Your task to perform on an android device: toggle pop-ups in chrome Image 0: 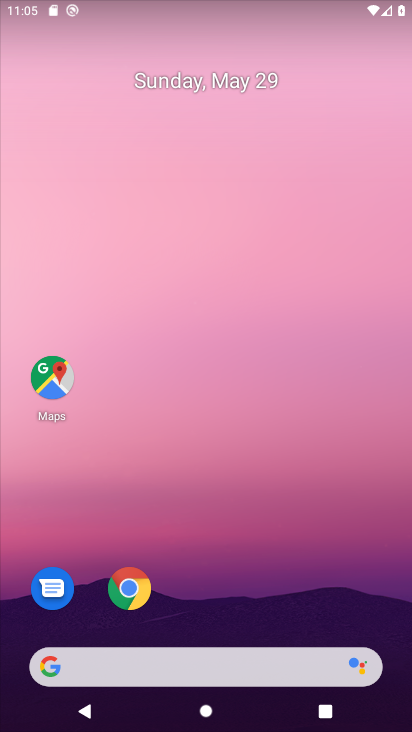
Step 0: click (131, 608)
Your task to perform on an android device: toggle pop-ups in chrome Image 1: 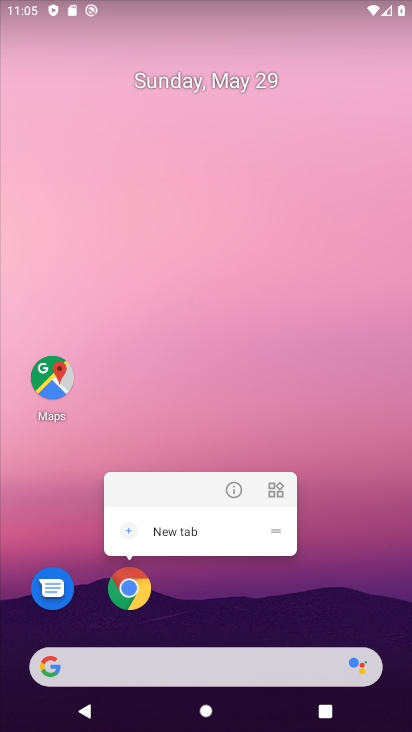
Step 1: click (135, 597)
Your task to perform on an android device: toggle pop-ups in chrome Image 2: 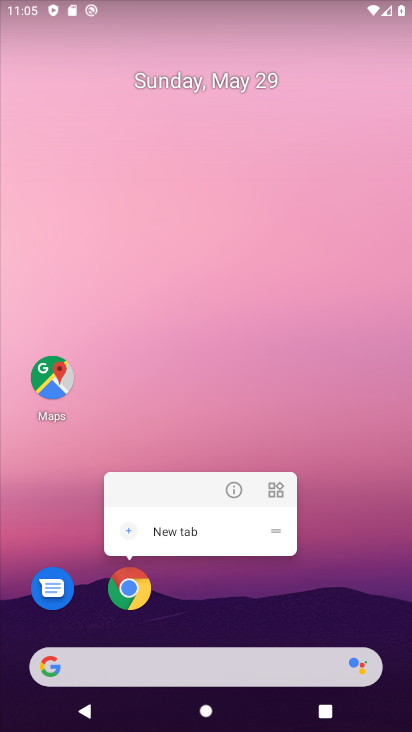
Step 2: click (145, 590)
Your task to perform on an android device: toggle pop-ups in chrome Image 3: 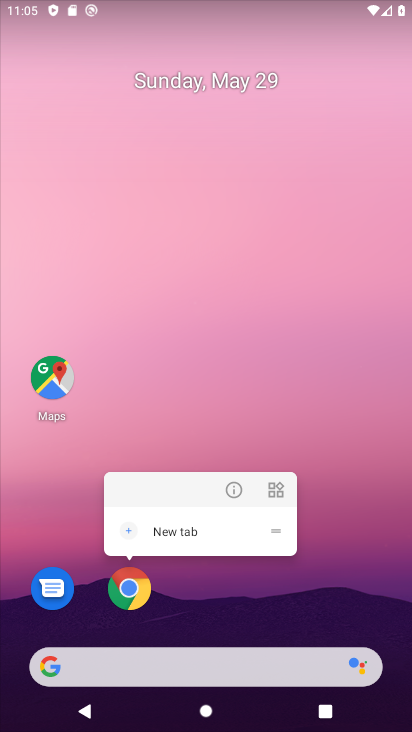
Step 3: click (119, 590)
Your task to perform on an android device: toggle pop-ups in chrome Image 4: 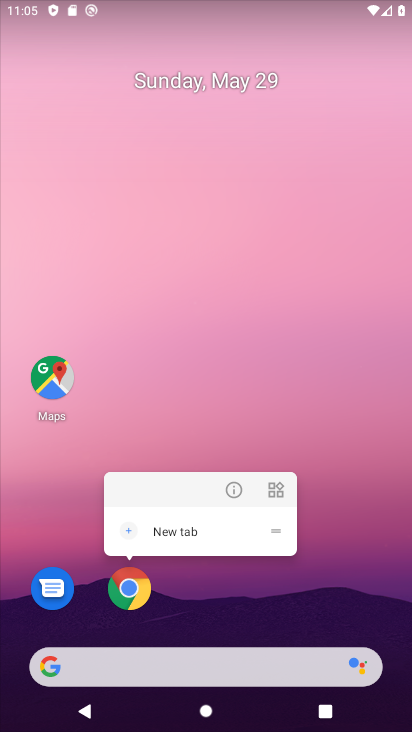
Step 4: click (135, 586)
Your task to perform on an android device: toggle pop-ups in chrome Image 5: 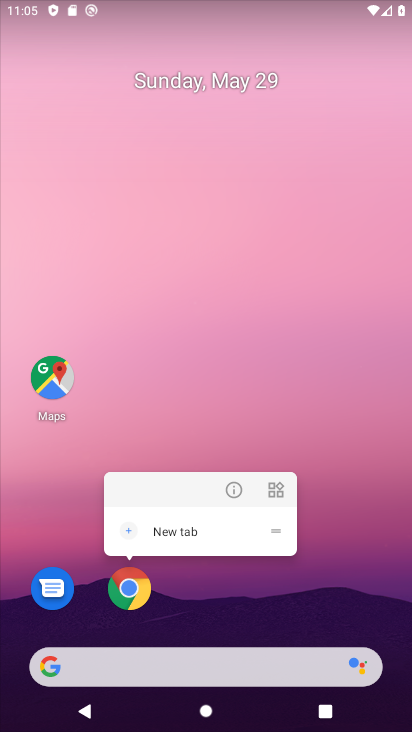
Step 5: click (126, 591)
Your task to perform on an android device: toggle pop-ups in chrome Image 6: 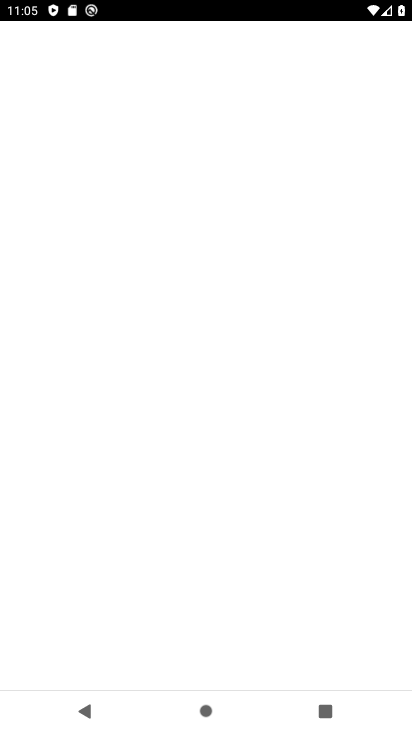
Step 6: click (128, 592)
Your task to perform on an android device: toggle pop-ups in chrome Image 7: 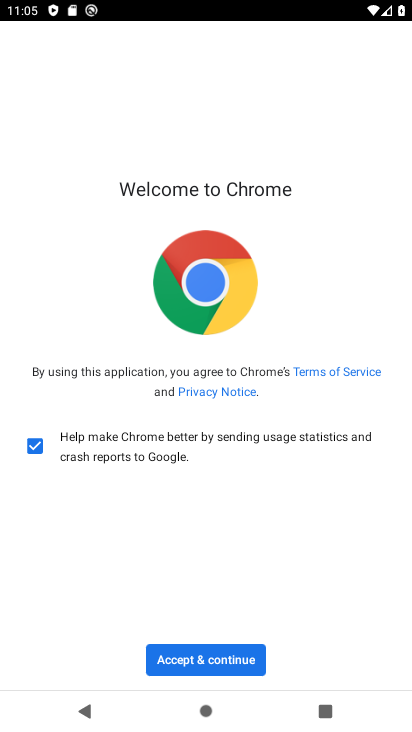
Step 7: click (194, 656)
Your task to perform on an android device: toggle pop-ups in chrome Image 8: 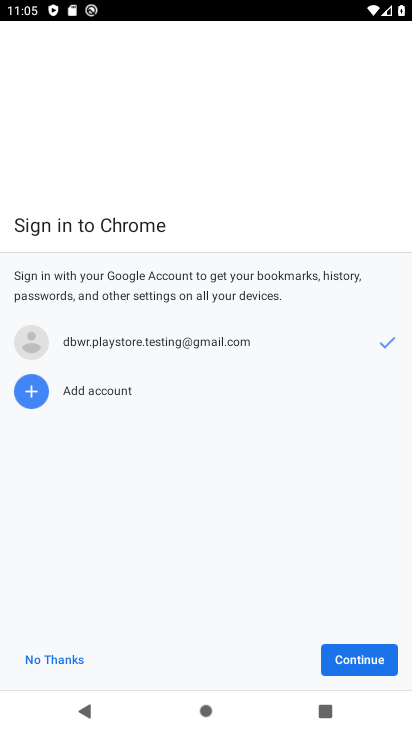
Step 8: click (365, 669)
Your task to perform on an android device: toggle pop-ups in chrome Image 9: 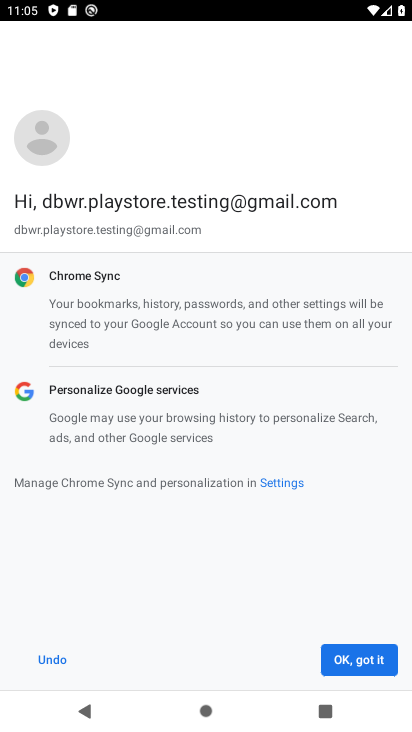
Step 9: click (365, 668)
Your task to perform on an android device: toggle pop-ups in chrome Image 10: 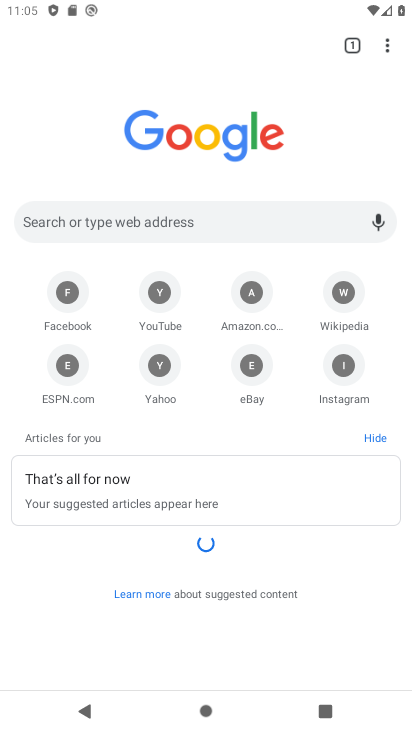
Step 10: drag from (406, 44) to (267, 400)
Your task to perform on an android device: toggle pop-ups in chrome Image 11: 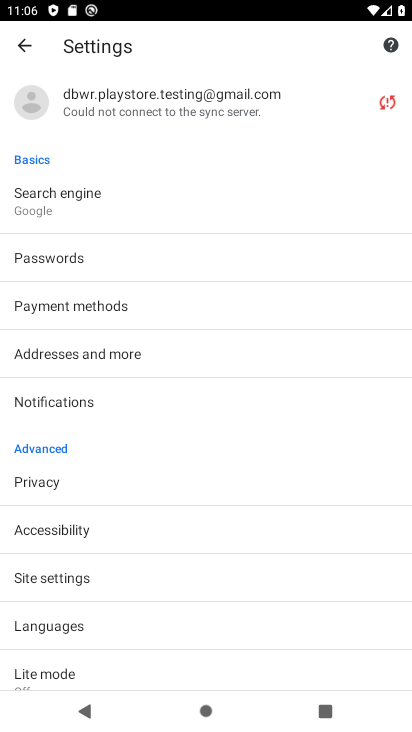
Step 11: drag from (107, 603) to (176, 391)
Your task to perform on an android device: toggle pop-ups in chrome Image 12: 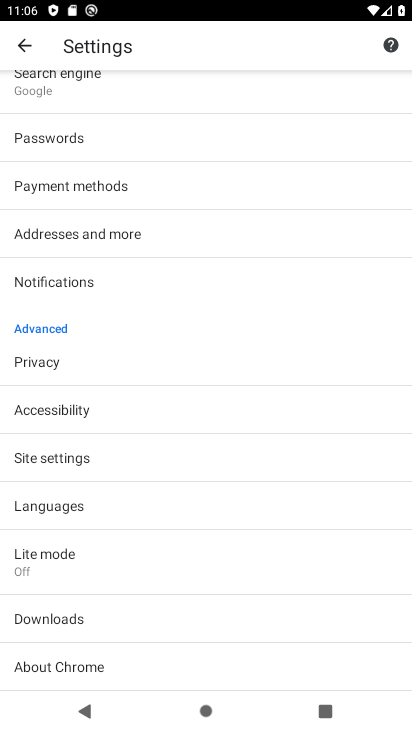
Step 12: click (116, 457)
Your task to perform on an android device: toggle pop-ups in chrome Image 13: 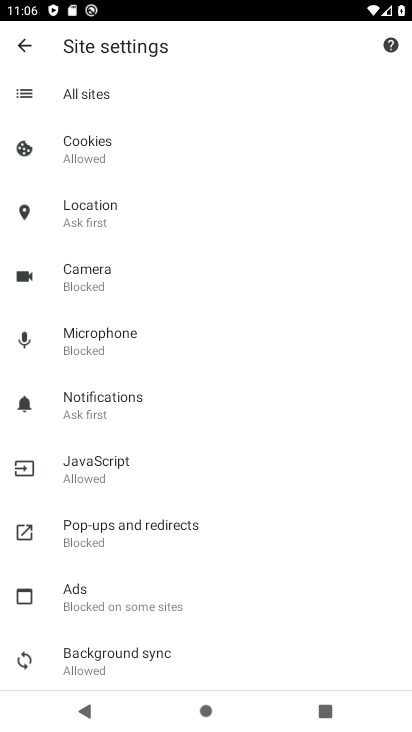
Step 13: drag from (139, 632) to (223, 368)
Your task to perform on an android device: toggle pop-ups in chrome Image 14: 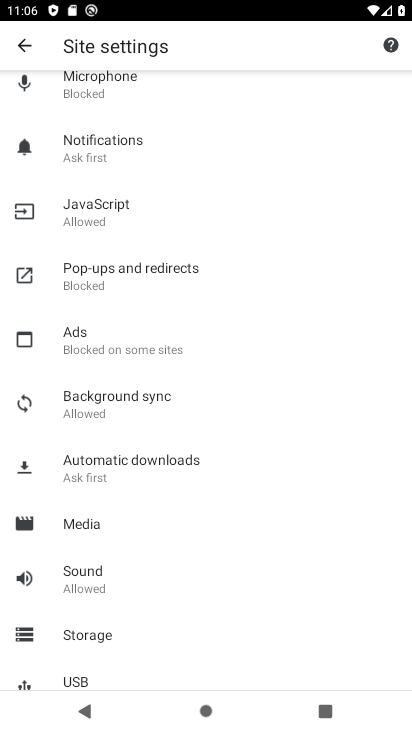
Step 14: click (189, 682)
Your task to perform on an android device: toggle pop-ups in chrome Image 15: 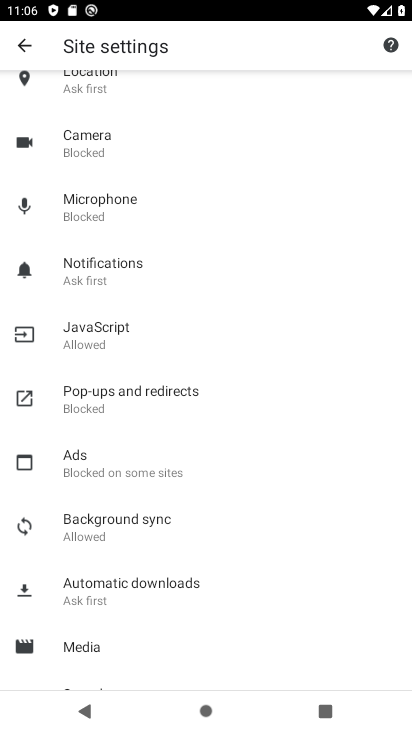
Step 15: click (172, 413)
Your task to perform on an android device: toggle pop-ups in chrome Image 16: 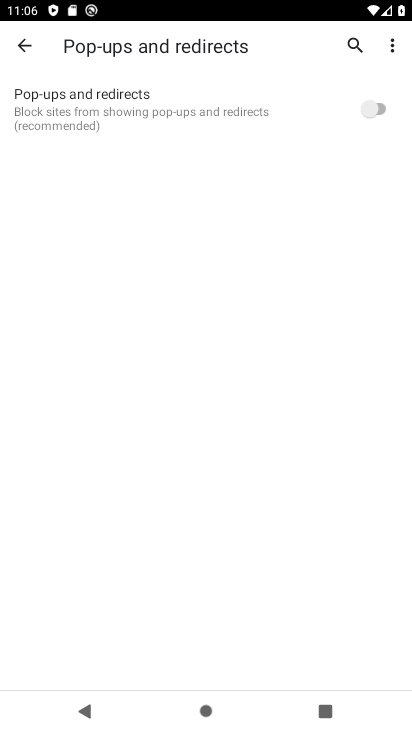
Step 16: click (386, 101)
Your task to perform on an android device: toggle pop-ups in chrome Image 17: 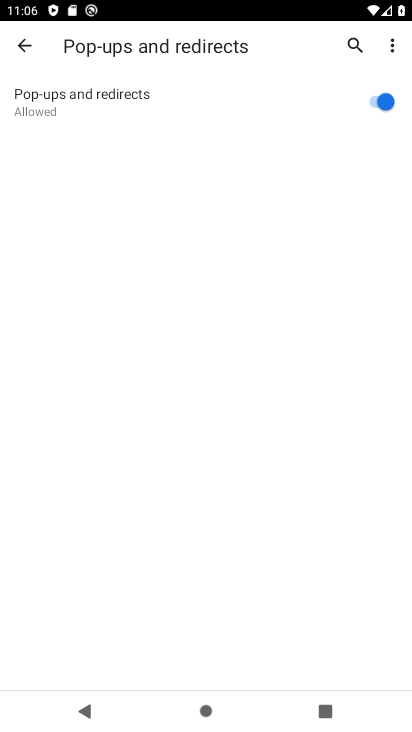
Step 17: task complete